Your task to perform on an android device: change timer sound Image 0: 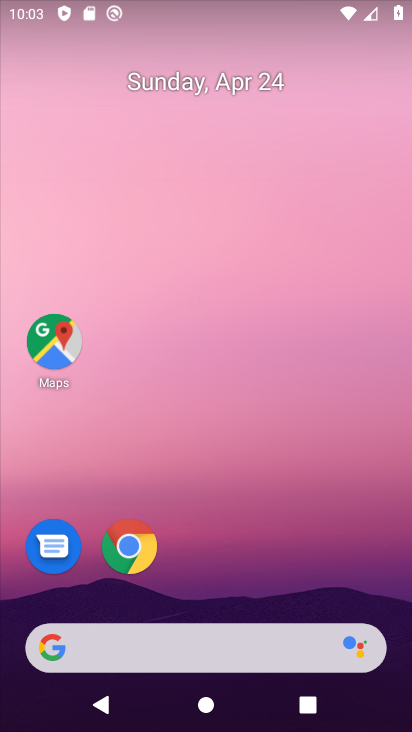
Step 0: drag from (301, 618) to (295, 106)
Your task to perform on an android device: change timer sound Image 1: 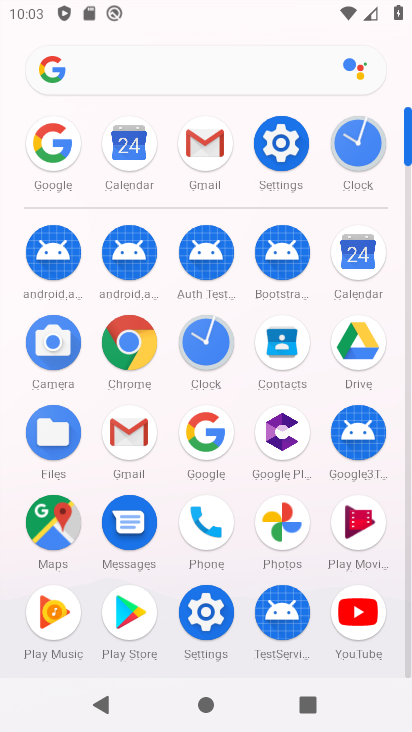
Step 1: click (373, 144)
Your task to perform on an android device: change timer sound Image 2: 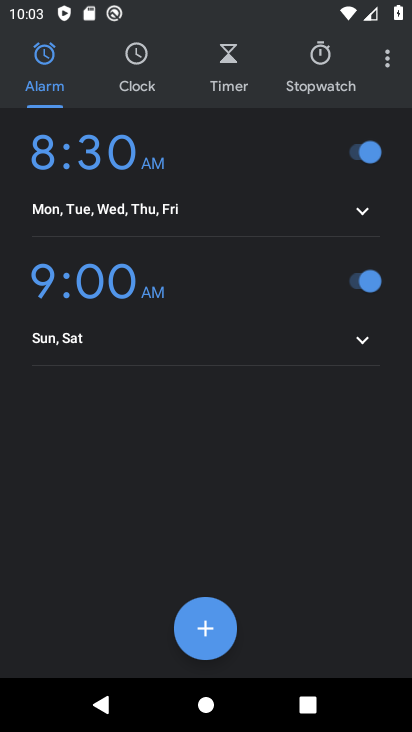
Step 2: click (391, 55)
Your task to perform on an android device: change timer sound Image 3: 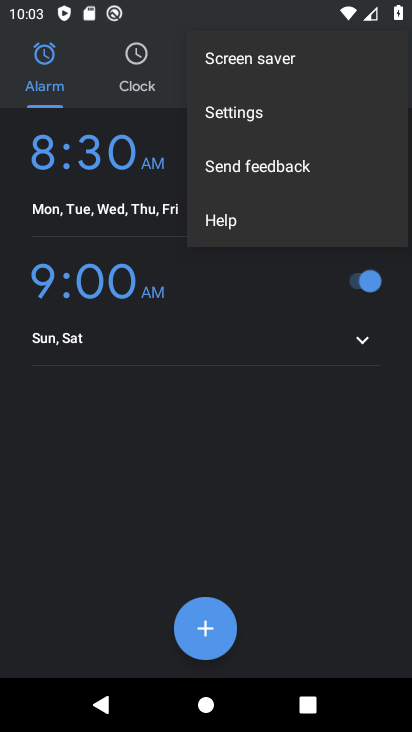
Step 3: click (325, 104)
Your task to perform on an android device: change timer sound Image 4: 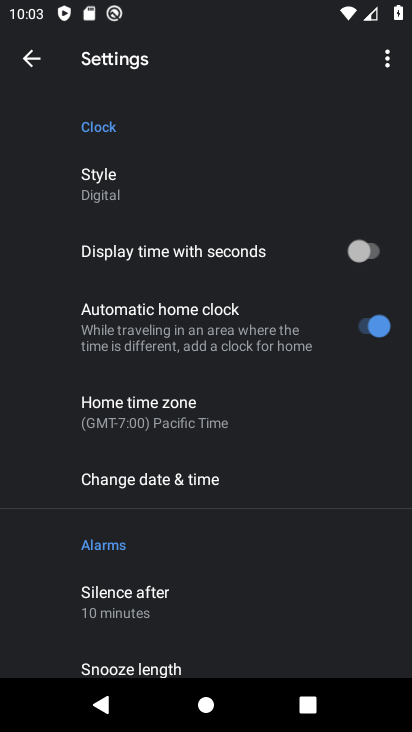
Step 4: drag from (136, 599) to (234, 203)
Your task to perform on an android device: change timer sound Image 5: 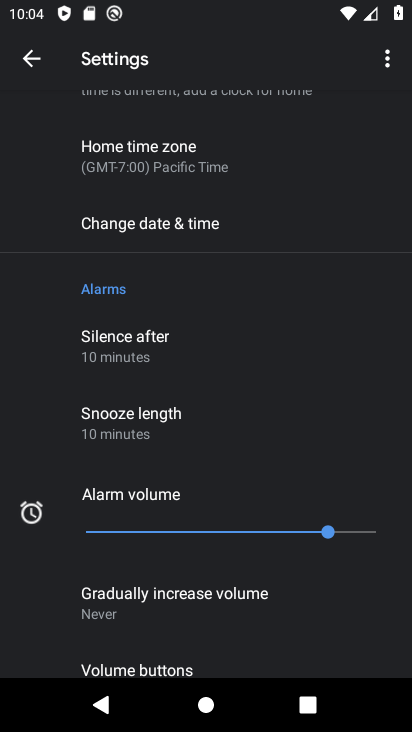
Step 5: drag from (224, 478) to (270, 221)
Your task to perform on an android device: change timer sound Image 6: 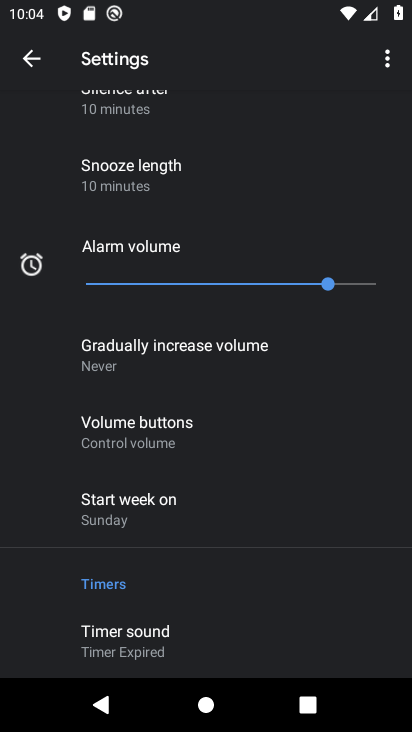
Step 6: click (184, 645)
Your task to perform on an android device: change timer sound Image 7: 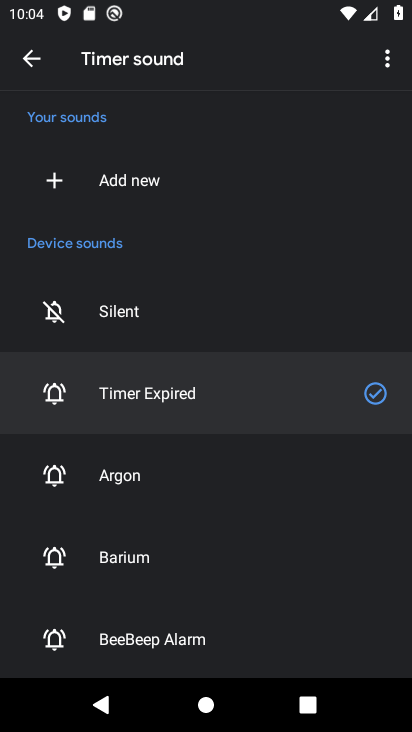
Step 7: click (84, 488)
Your task to perform on an android device: change timer sound Image 8: 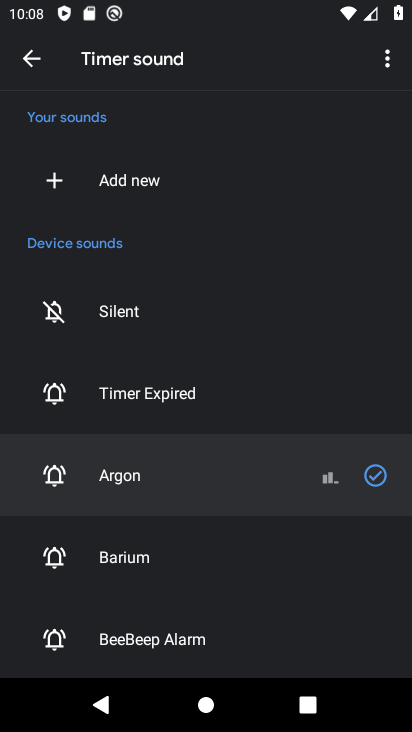
Step 8: task complete